Your task to perform on an android device: View the shopping cart on target. Image 0: 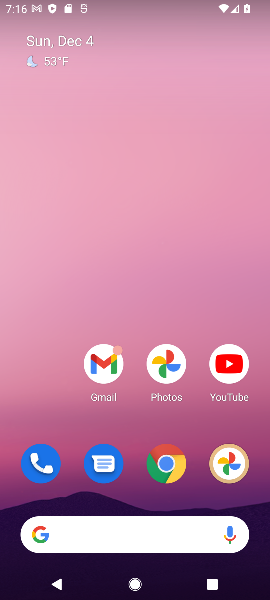
Step 0: click (127, 523)
Your task to perform on an android device: View the shopping cart on target. Image 1: 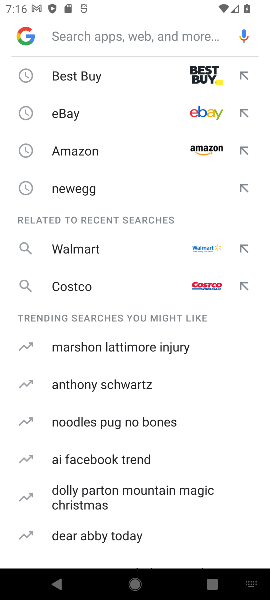
Step 1: type "target"
Your task to perform on an android device: View the shopping cart on target. Image 2: 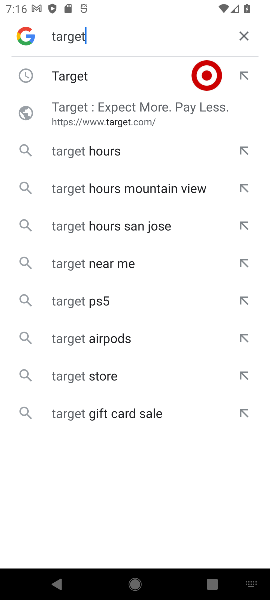
Step 2: click (94, 75)
Your task to perform on an android device: View the shopping cart on target. Image 3: 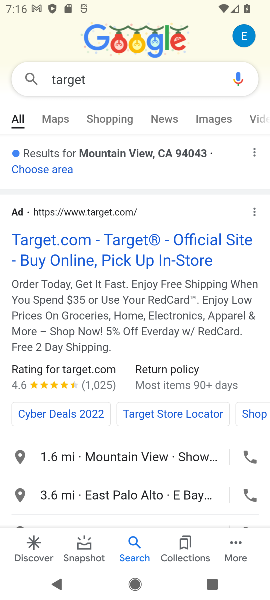
Step 3: click (106, 236)
Your task to perform on an android device: View the shopping cart on target. Image 4: 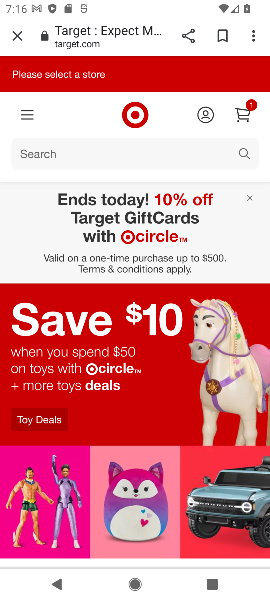
Step 4: click (238, 118)
Your task to perform on an android device: View the shopping cart on target. Image 5: 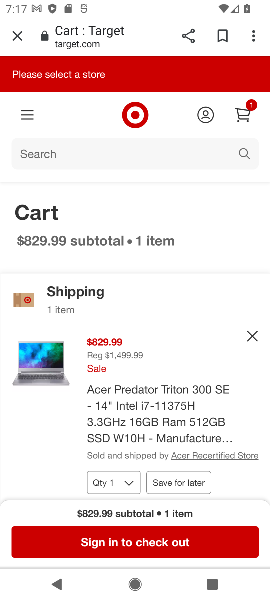
Step 5: task complete